Your task to perform on an android device: Open Google Maps and go to "Timeline" Image 0: 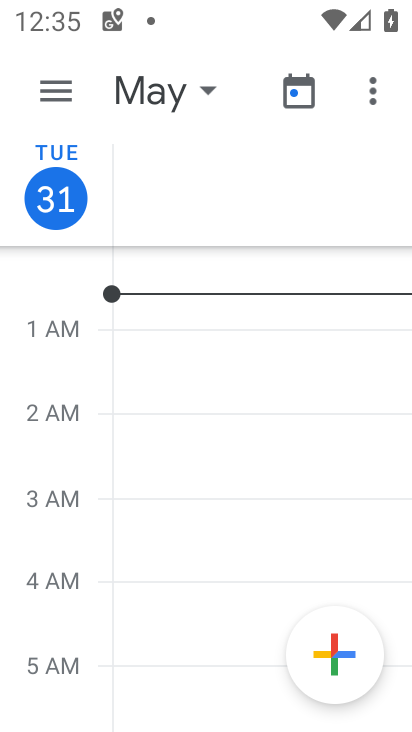
Step 0: press home button
Your task to perform on an android device: Open Google Maps and go to "Timeline" Image 1: 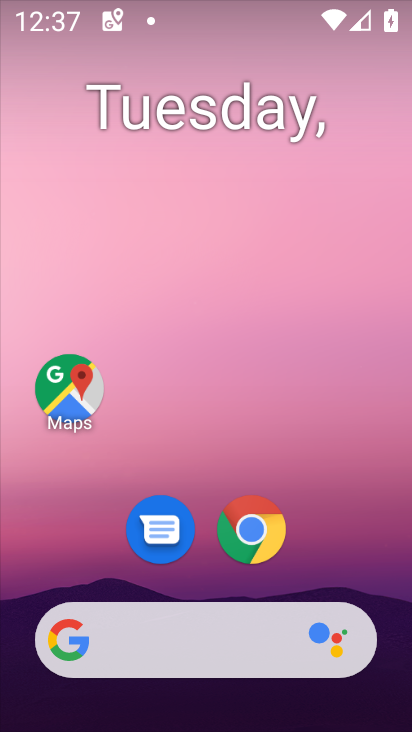
Step 1: click (90, 388)
Your task to perform on an android device: Open Google Maps and go to "Timeline" Image 2: 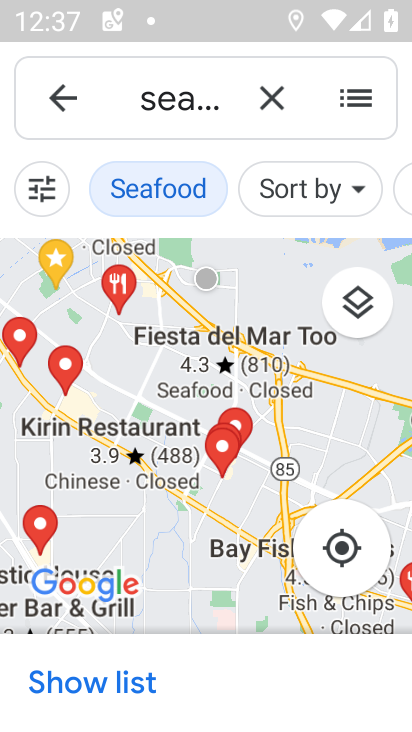
Step 2: click (76, 93)
Your task to perform on an android device: Open Google Maps and go to "Timeline" Image 3: 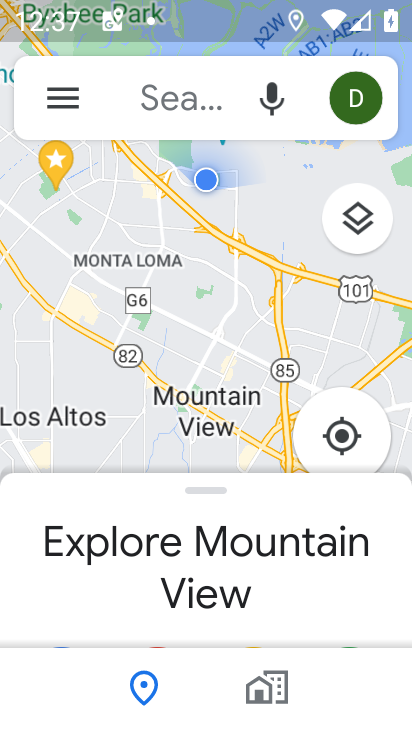
Step 3: click (69, 105)
Your task to perform on an android device: Open Google Maps and go to "Timeline" Image 4: 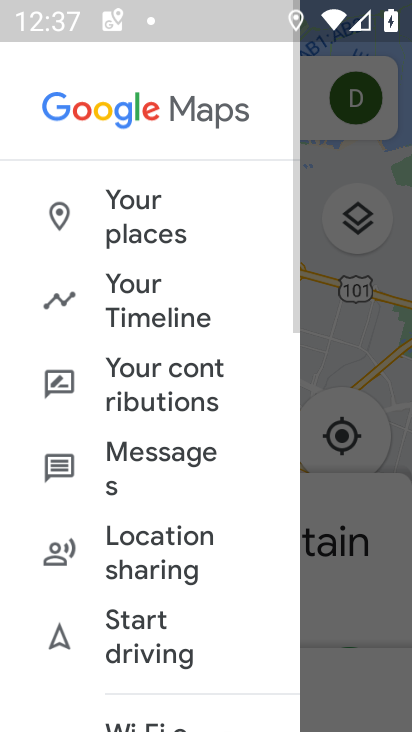
Step 4: click (156, 317)
Your task to perform on an android device: Open Google Maps and go to "Timeline" Image 5: 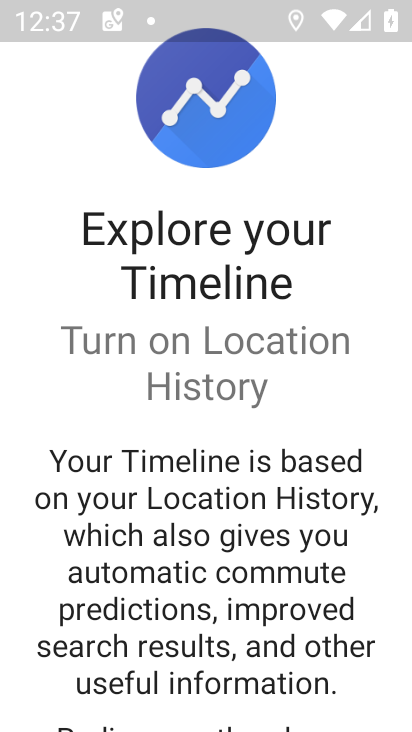
Step 5: drag from (199, 596) to (268, 62)
Your task to perform on an android device: Open Google Maps and go to "Timeline" Image 6: 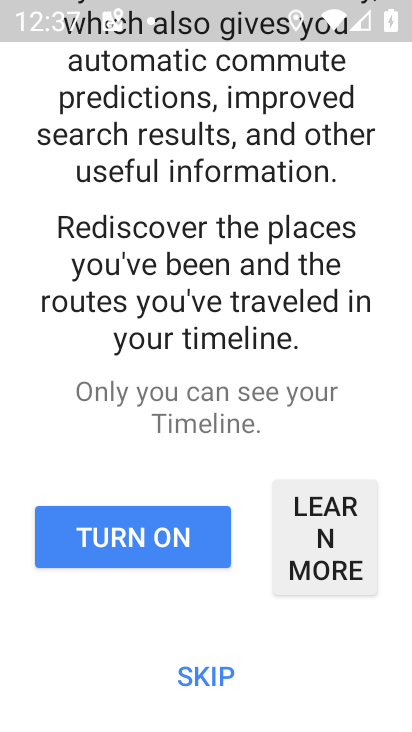
Step 6: click (203, 669)
Your task to perform on an android device: Open Google Maps and go to "Timeline" Image 7: 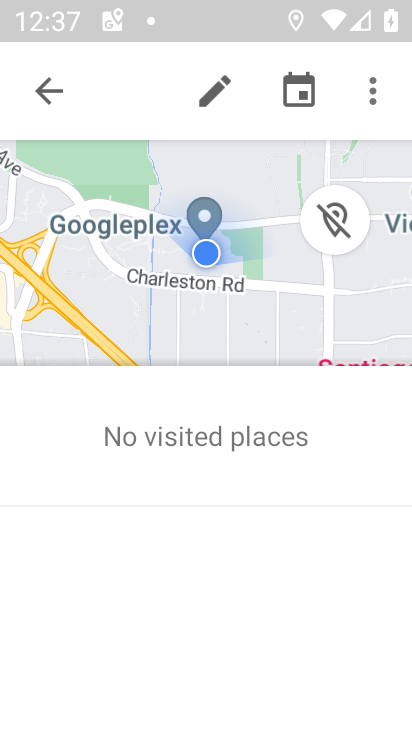
Step 7: task complete